Your task to perform on an android device: Go to wifi settings Image 0: 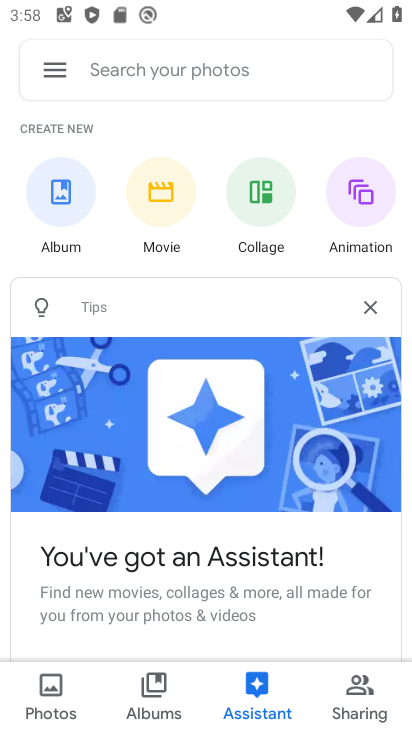
Step 0: press home button
Your task to perform on an android device: Go to wifi settings Image 1: 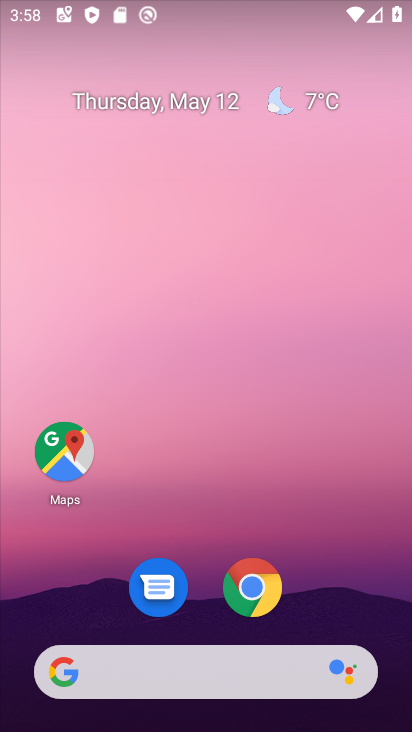
Step 1: drag from (320, 407) to (339, 154)
Your task to perform on an android device: Go to wifi settings Image 2: 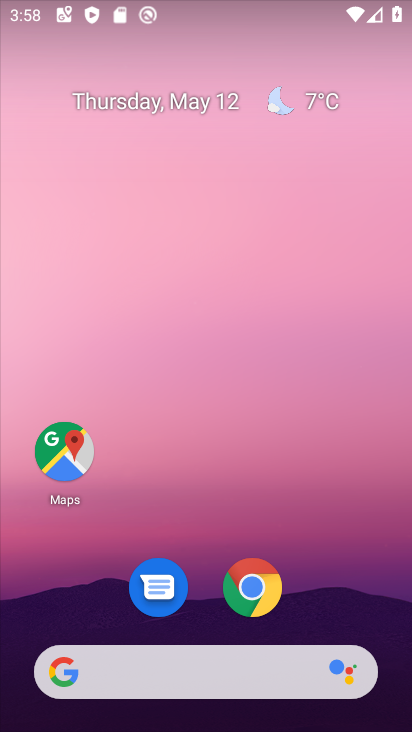
Step 2: drag from (336, 518) to (336, 198)
Your task to perform on an android device: Go to wifi settings Image 3: 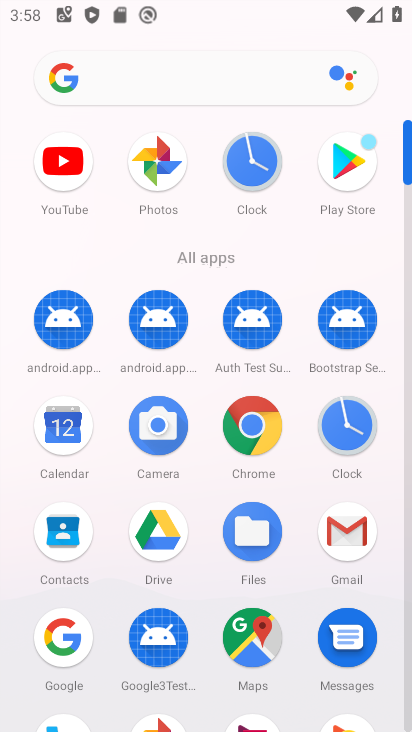
Step 3: drag from (196, 585) to (202, 353)
Your task to perform on an android device: Go to wifi settings Image 4: 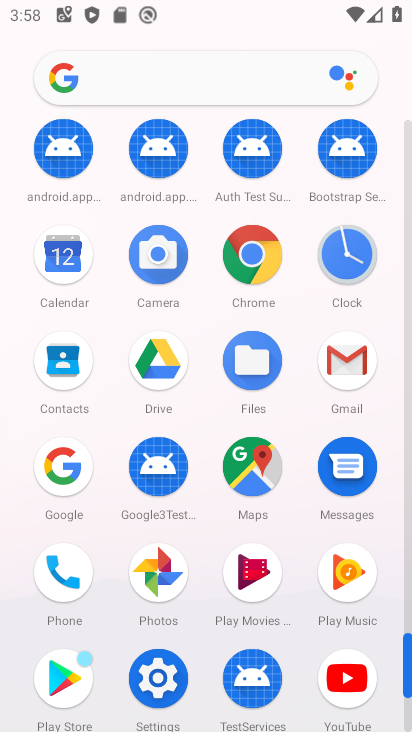
Step 4: click (167, 671)
Your task to perform on an android device: Go to wifi settings Image 5: 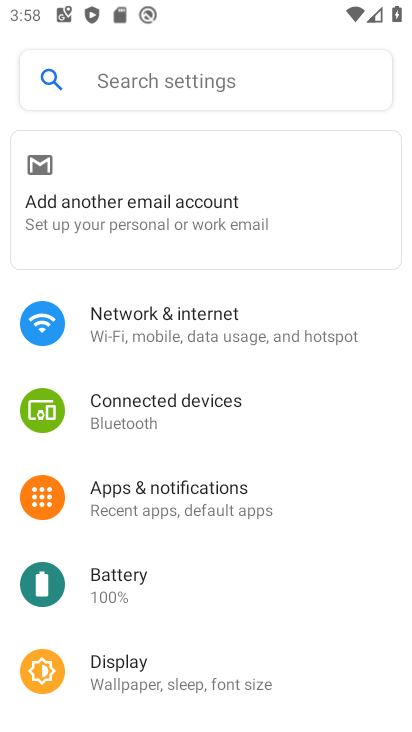
Step 5: click (213, 327)
Your task to perform on an android device: Go to wifi settings Image 6: 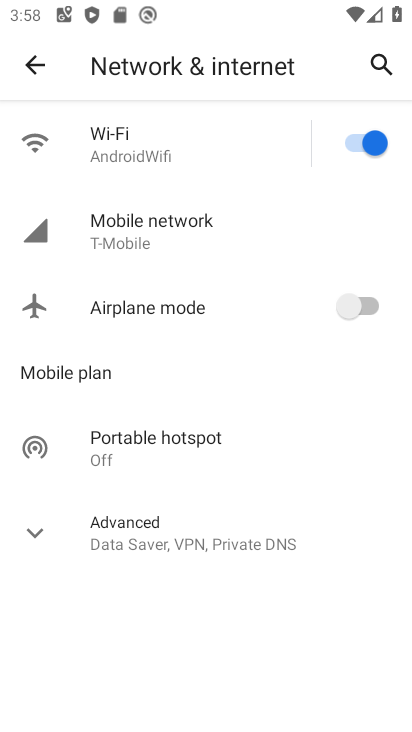
Step 6: click (184, 144)
Your task to perform on an android device: Go to wifi settings Image 7: 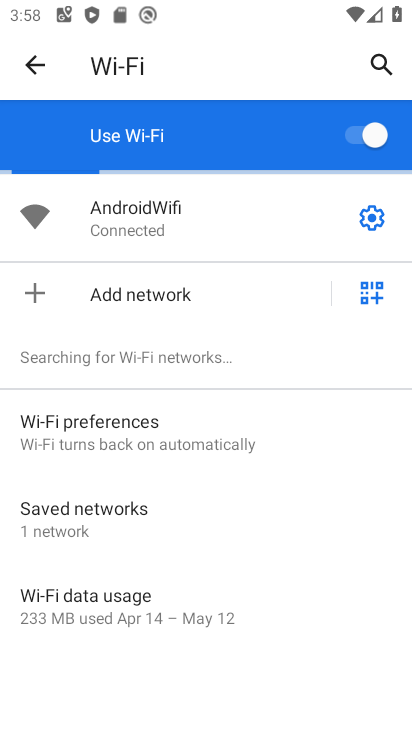
Step 7: task complete